Your task to perform on an android device: open app "eBay: The shopping marketplace" (install if not already installed) and enter user name: "articulated@icloud.com" and password: "excluding" Image 0: 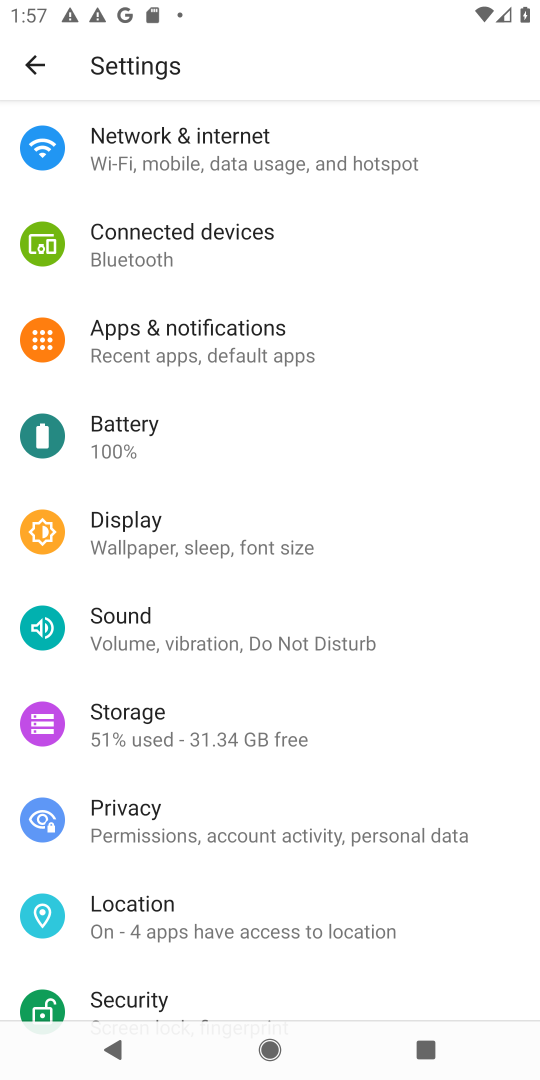
Step 0: press home button
Your task to perform on an android device: open app "eBay: The shopping marketplace" (install if not already installed) and enter user name: "articulated@icloud.com" and password: "excluding" Image 1: 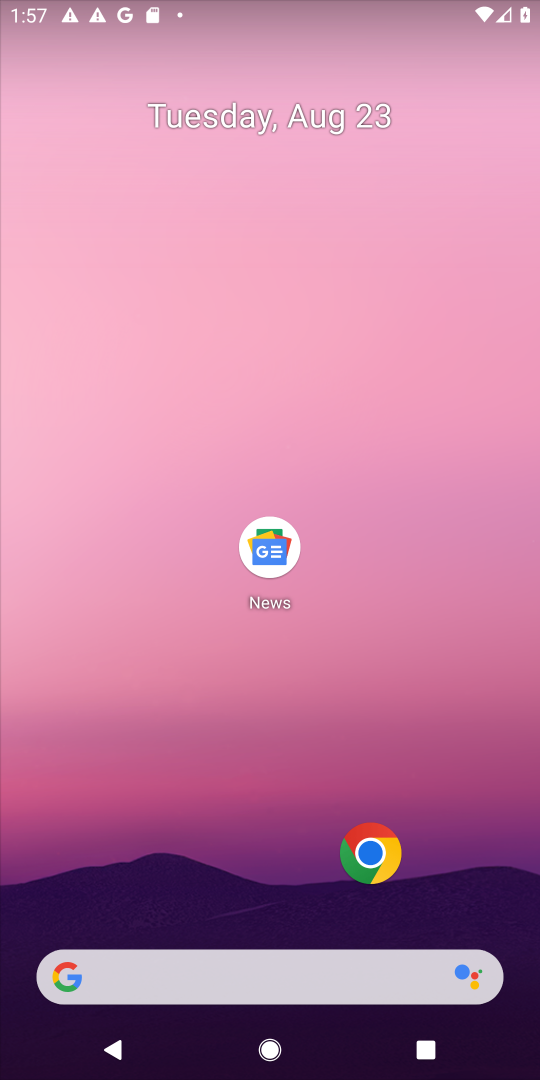
Step 1: drag from (495, 778) to (414, 172)
Your task to perform on an android device: open app "eBay: The shopping marketplace" (install if not already installed) and enter user name: "articulated@icloud.com" and password: "excluding" Image 2: 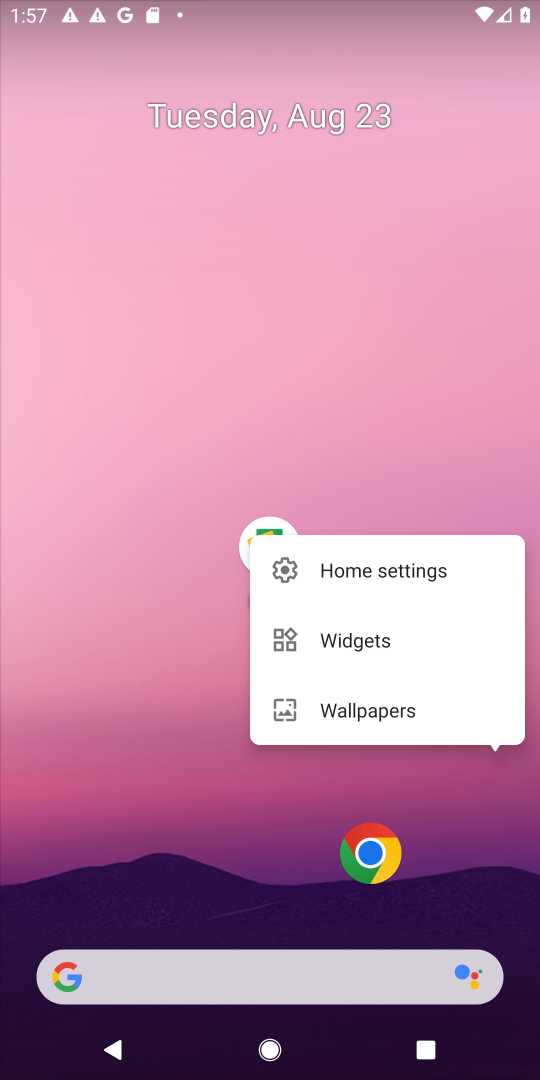
Step 2: click (474, 884)
Your task to perform on an android device: open app "eBay: The shopping marketplace" (install if not already installed) and enter user name: "articulated@icloud.com" and password: "excluding" Image 3: 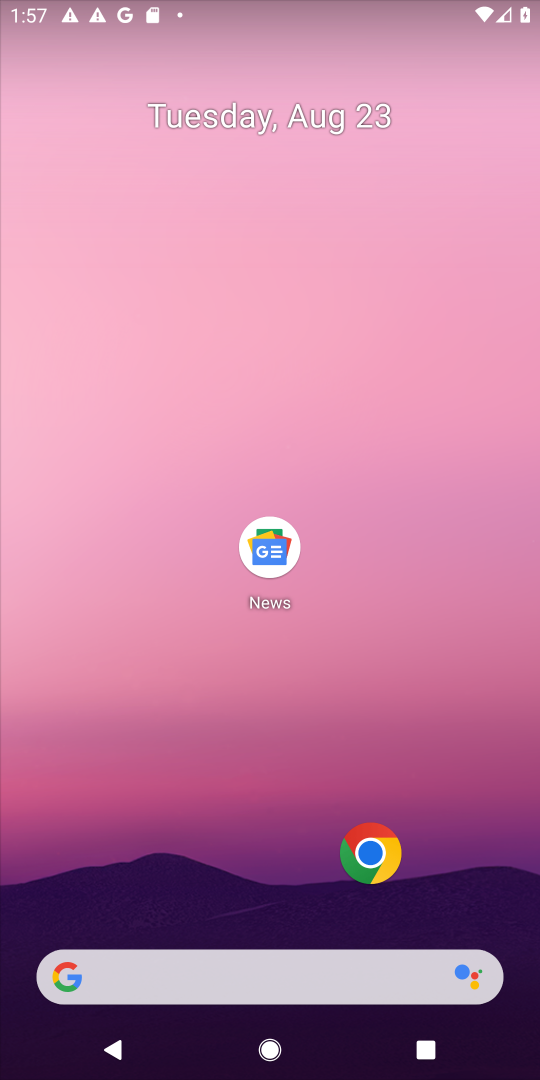
Step 3: drag from (512, 915) to (426, 142)
Your task to perform on an android device: open app "eBay: The shopping marketplace" (install if not already installed) and enter user name: "articulated@icloud.com" and password: "excluding" Image 4: 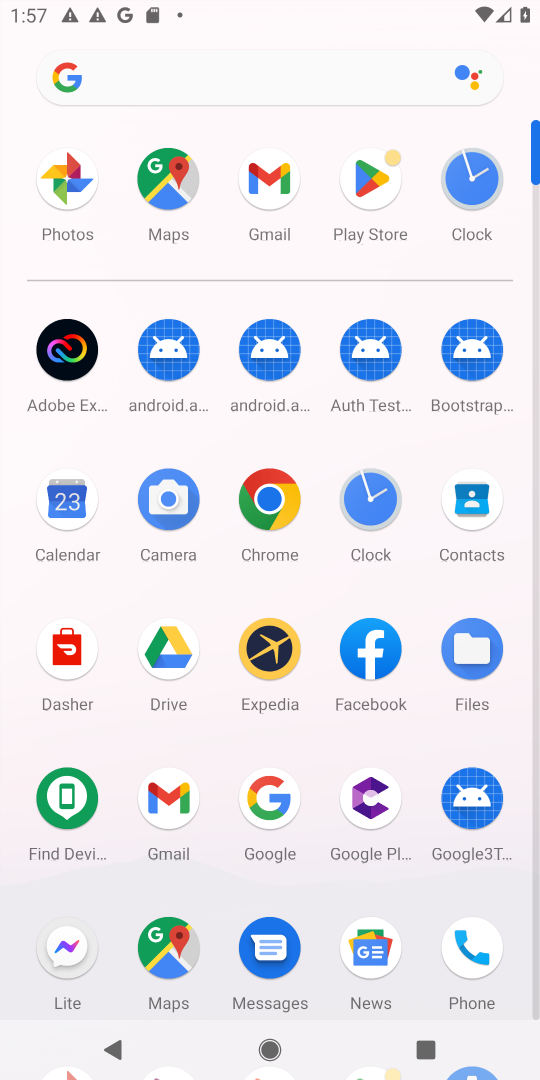
Step 4: click (537, 964)
Your task to perform on an android device: open app "eBay: The shopping marketplace" (install if not already installed) and enter user name: "articulated@icloud.com" and password: "excluding" Image 5: 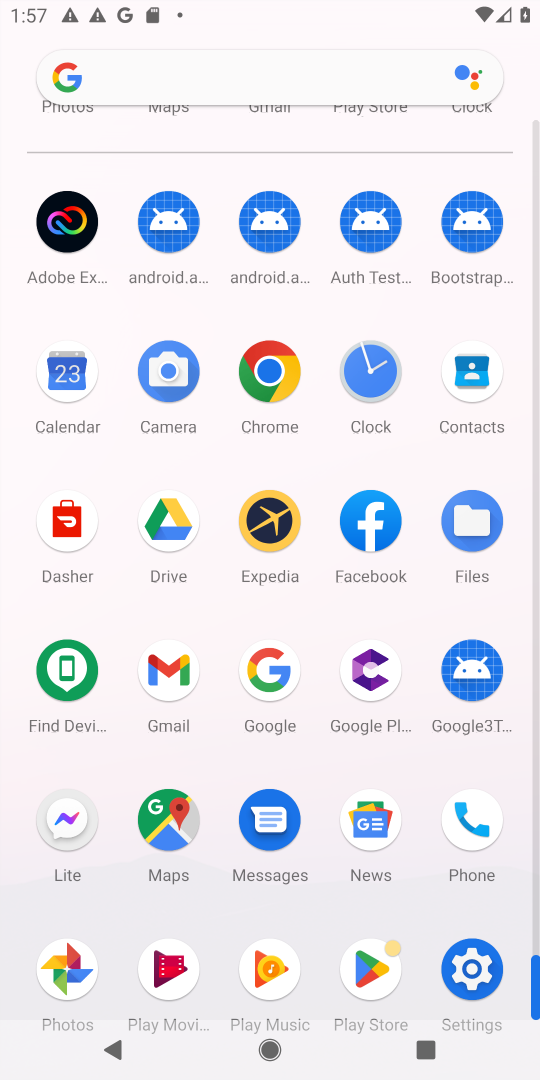
Step 5: click (371, 968)
Your task to perform on an android device: open app "eBay: The shopping marketplace" (install if not already installed) and enter user name: "articulated@icloud.com" and password: "excluding" Image 6: 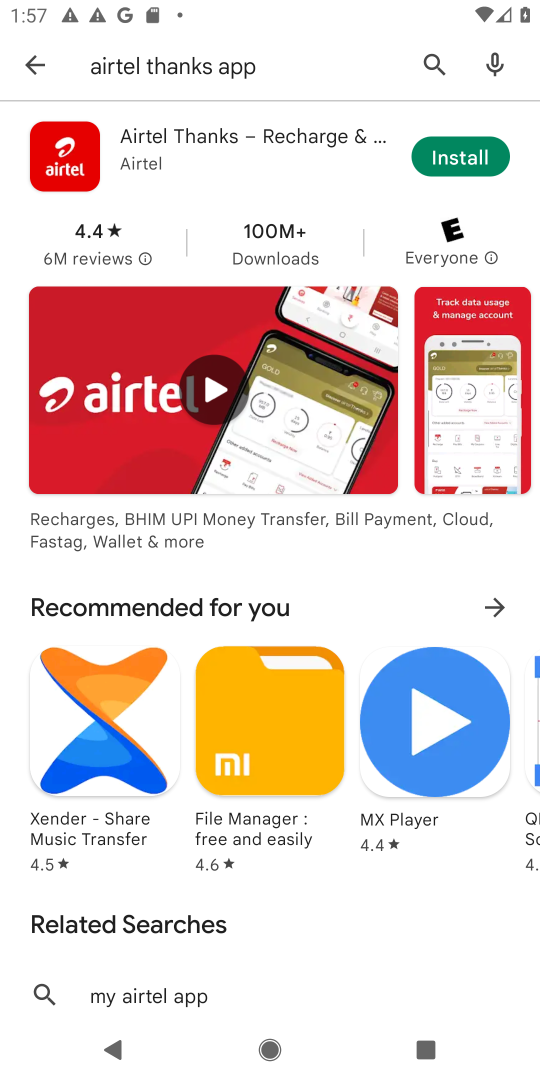
Step 6: click (435, 55)
Your task to perform on an android device: open app "eBay: The shopping marketplace" (install if not already installed) and enter user name: "articulated@icloud.com" and password: "excluding" Image 7: 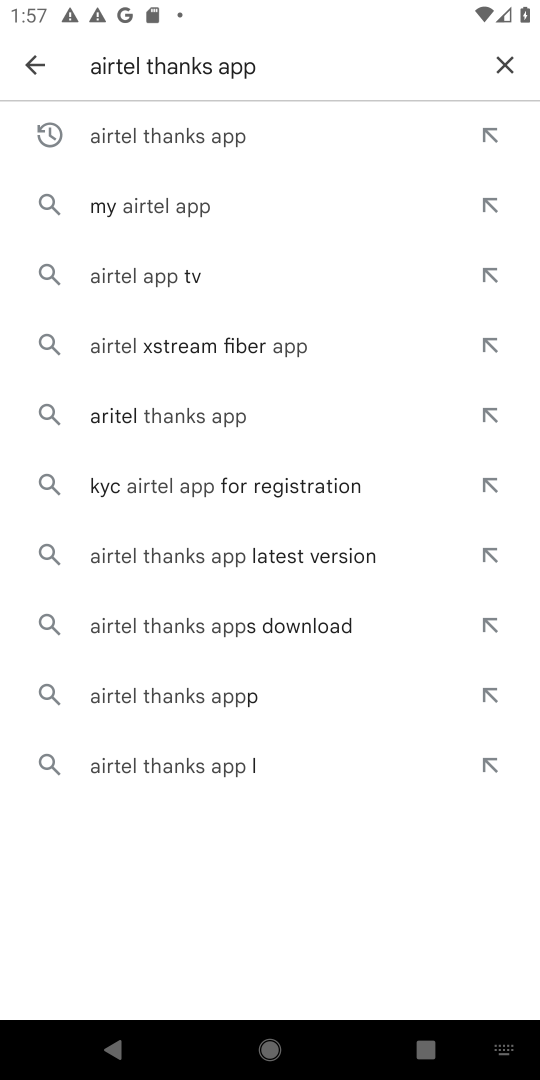
Step 7: click (507, 59)
Your task to perform on an android device: open app "eBay: The shopping marketplace" (install if not already installed) and enter user name: "articulated@icloud.com" and password: "excluding" Image 8: 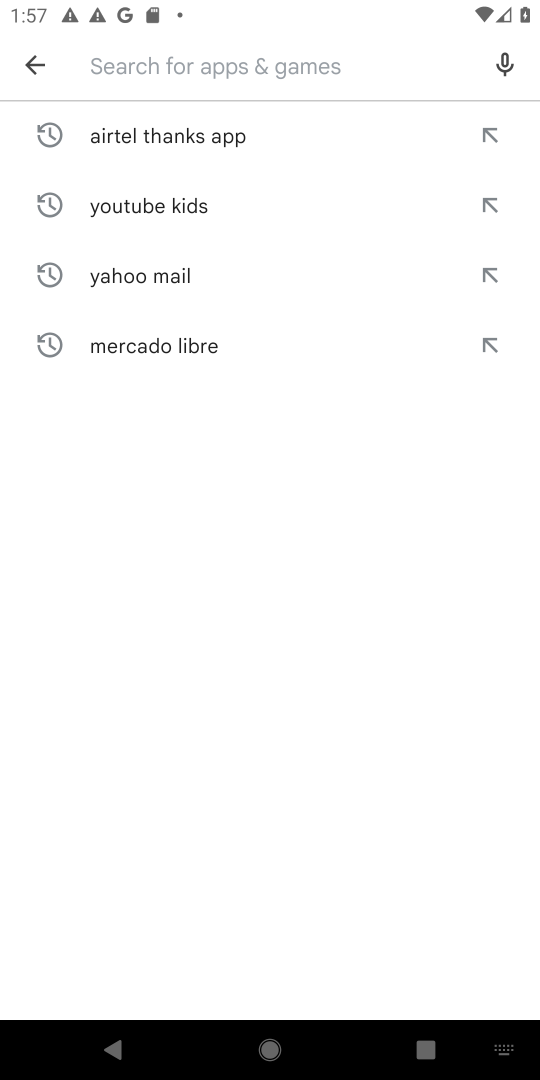
Step 8: type "eBay: The shopping marketplace"
Your task to perform on an android device: open app "eBay: The shopping marketplace" (install if not already installed) and enter user name: "articulated@icloud.com" and password: "excluding" Image 9: 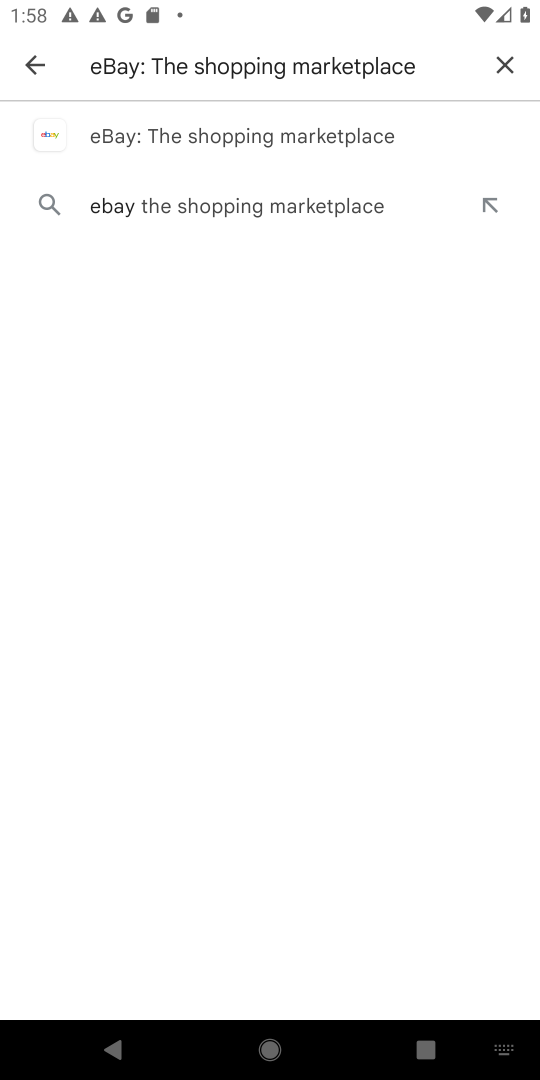
Step 9: click (171, 128)
Your task to perform on an android device: open app "eBay: The shopping marketplace" (install if not already installed) and enter user name: "articulated@icloud.com" and password: "excluding" Image 10: 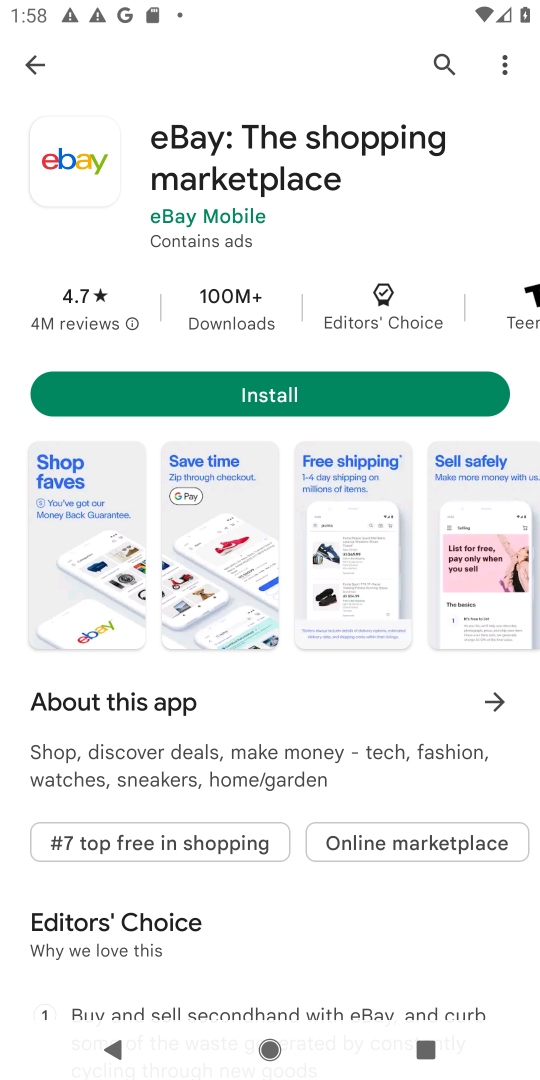
Step 10: click (266, 392)
Your task to perform on an android device: open app "eBay: The shopping marketplace" (install if not already installed) and enter user name: "articulated@icloud.com" and password: "excluding" Image 11: 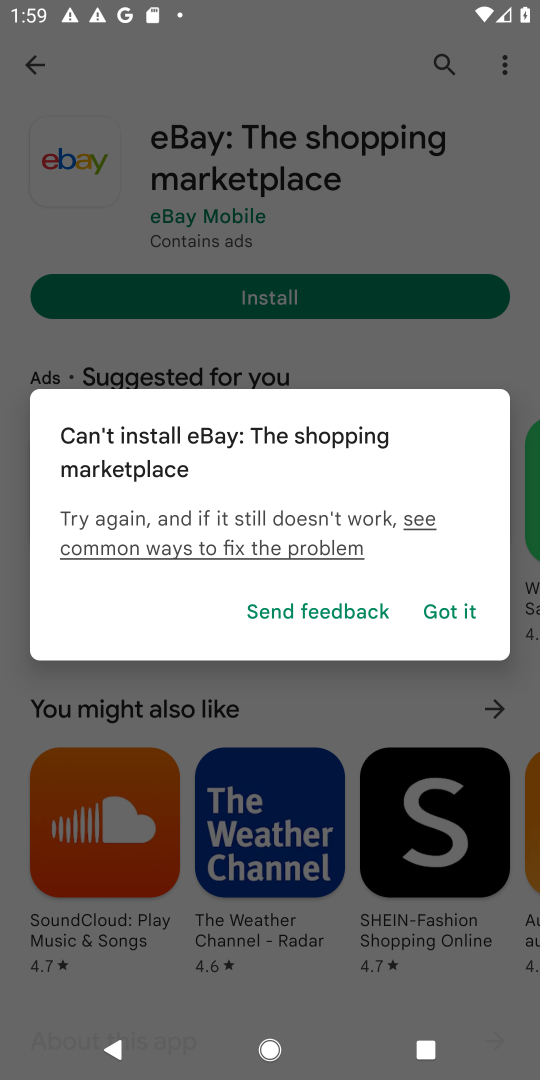
Step 11: click (448, 611)
Your task to perform on an android device: open app "eBay: The shopping marketplace" (install if not already installed) and enter user name: "articulated@icloud.com" and password: "excluding" Image 12: 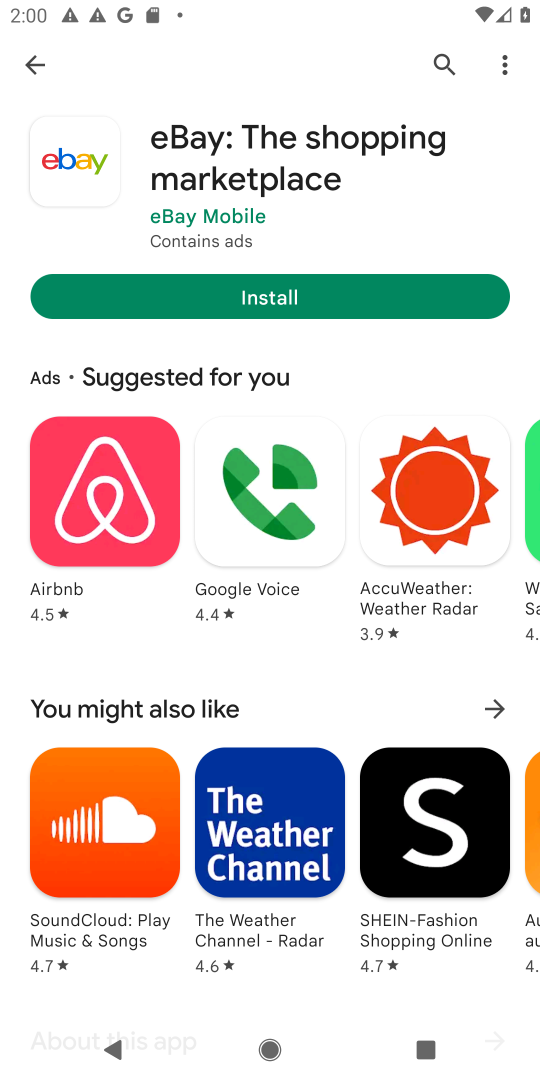
Step 12: click (445, 74)
Your task to perform on an android device: open app "eBay: The shopping marketplace" (install if not already installed) and enter user name: "articulated@icloud.com" and password: "excluding" Image 13: 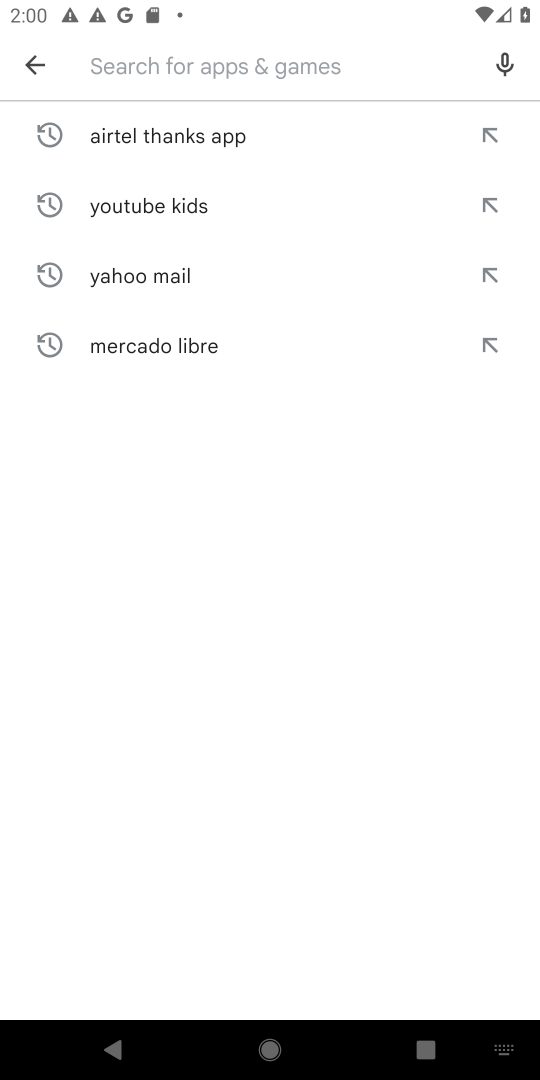
Step 13: task complete